Your task to perform on an android device: clear history in the chrome app Image 0: 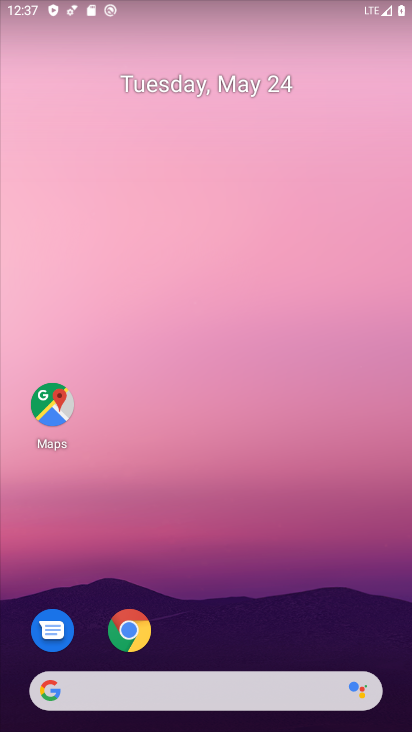
Step 0: click (141, 640)
Your task to perform on an android device: clear history in the chrome app Image 1: 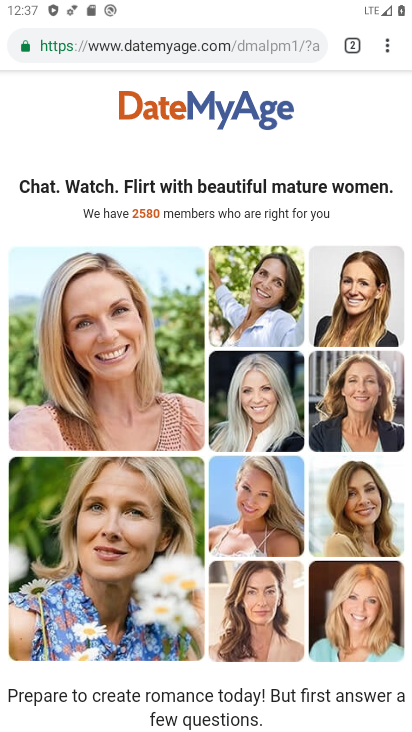
Step 1: click (393, 39)
Your task to perform on an android device: clear history in the chrome app Image 2: 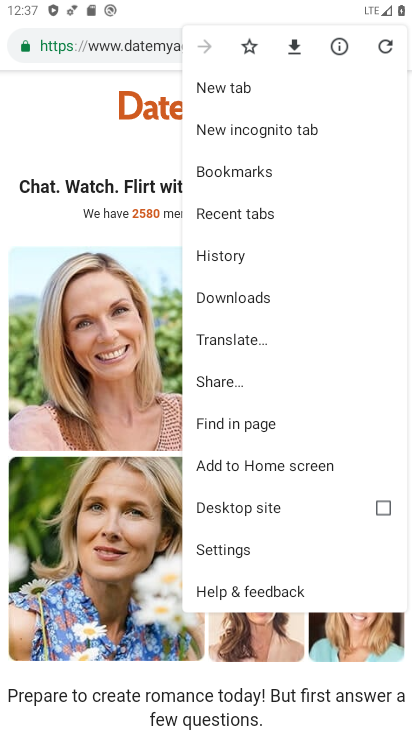
Step 2: click (229, 261)
Your task to perform on an android device: clear history in the chrome app Image 3: 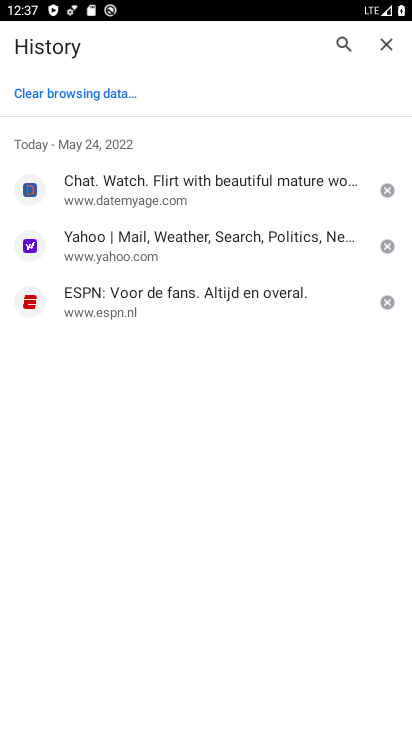
Step 3: click (113, 91)
Your task to perform on an android device: clear history in the chrome app Image 4: 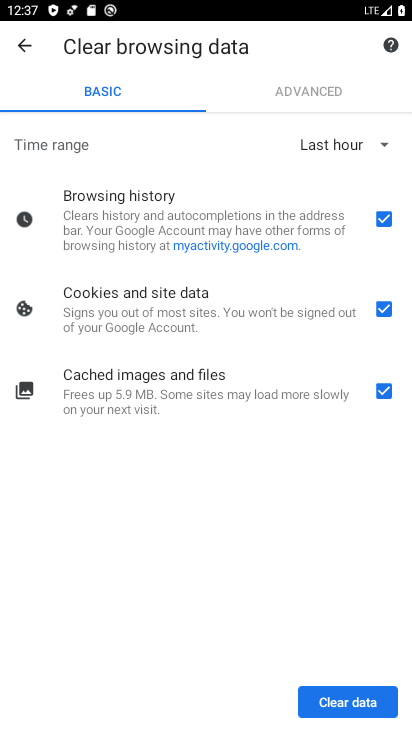
Step 4: click (371, 701)
Your task to perform on an android device: clear history in the chrome app Image 5: 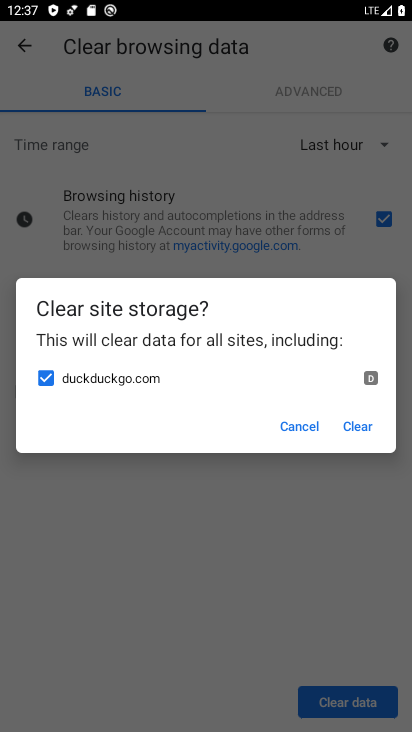
Step 5: click (354, 421)
Your task to perform on an android device: clear history in the chrome app Image 6: 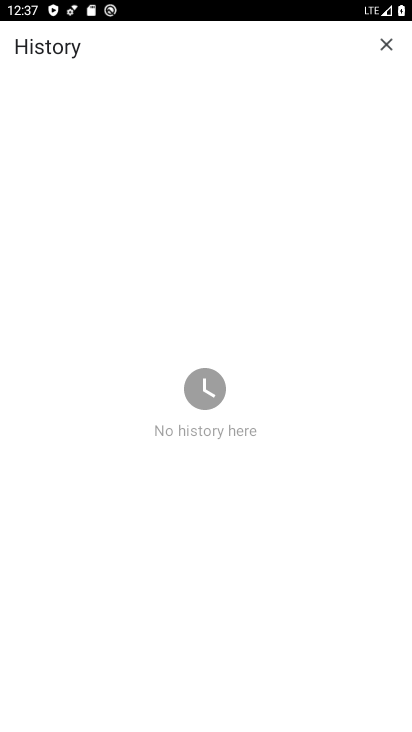
Step 6: click (361, 421)
Your task to perform on an android device: clear history in the chrome app Image 7: 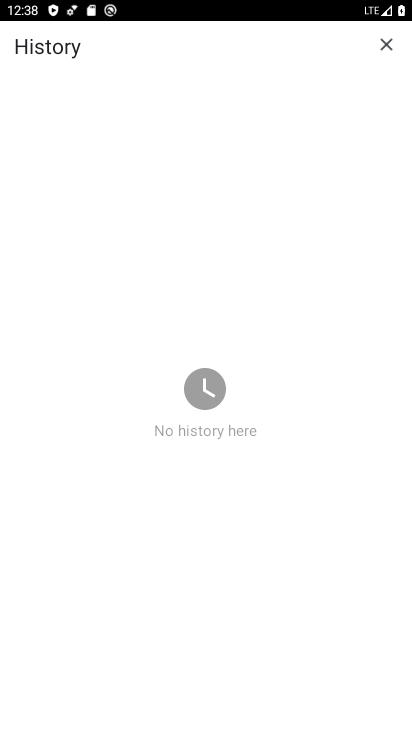
Step 7: task complete